Your task to perform on an android device: turn on improve location accuracy Image 0: 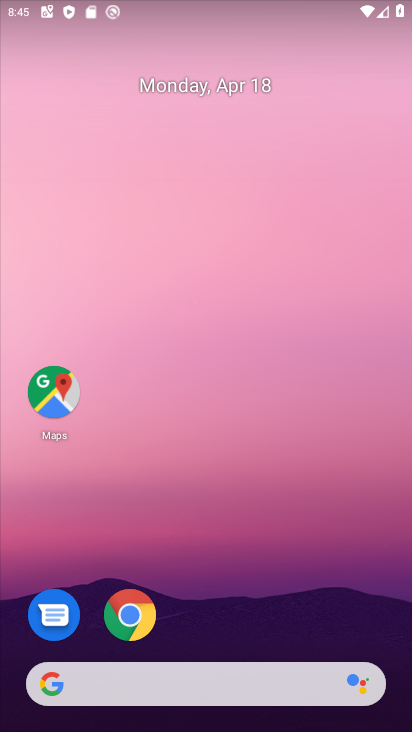
Step 0: drag from (367, 544) to (380, 114)
Your task to perform on an android device: turn on improve location accuracy Image 1: 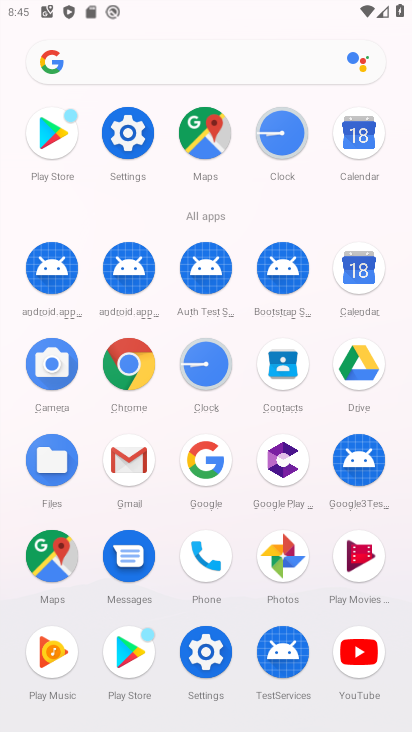
Step 1: click (206, 642)
Your task to perform on an android device: turn on improve location accuracy Image 2: 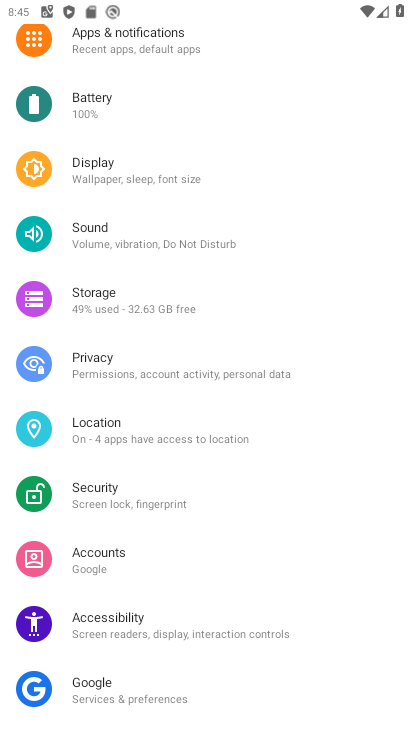
Step 2: click (93, 433)
Your task to perform on an android device: turn on improve location accuracy Image 3: 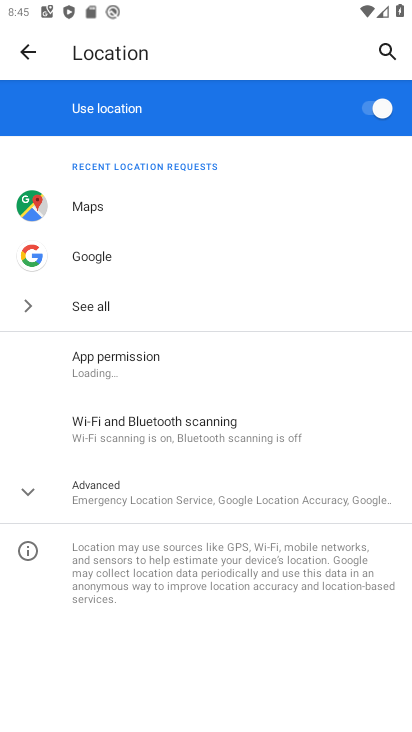
Step 3: click (109, 481)
Your task to perform on an android device: turn on improve location accuracy Image 4: 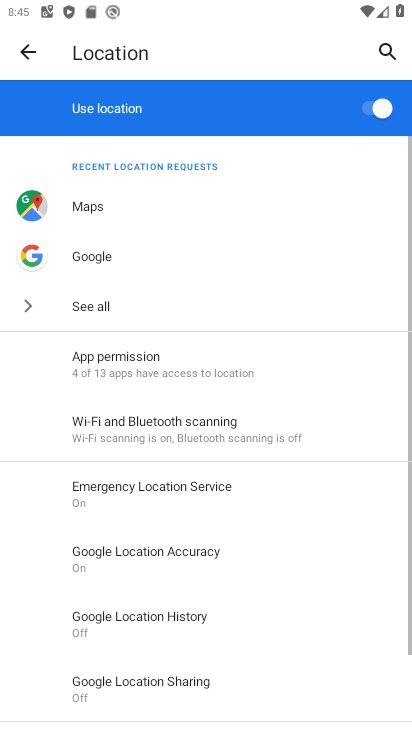
Step 4: click (148, 558)
Your task to perform on an android device: turn on improve location accuracy Image 5: 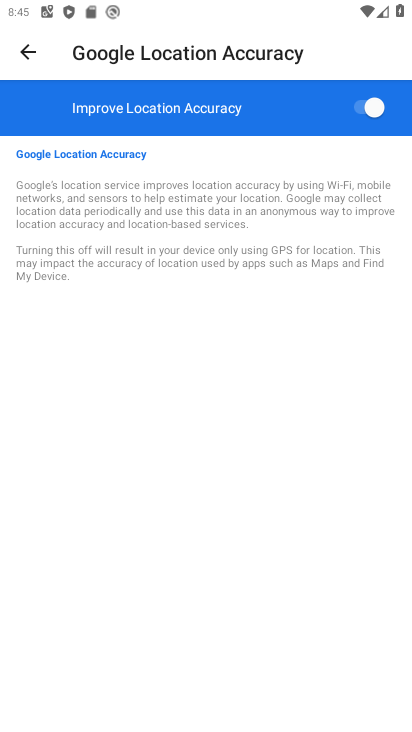
Step 5: task complete